Your task to perform on an android device: Open sound settings Image 0: 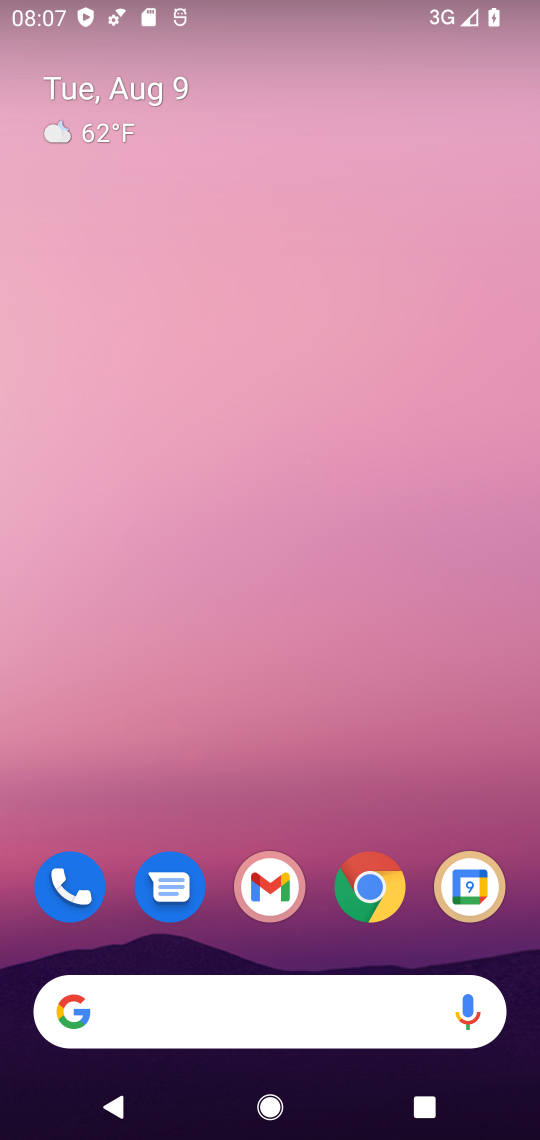
Step 0: drag from (380, 759) to (383, 0)
Your task to perform on an android device: Open sound settings Image 1: 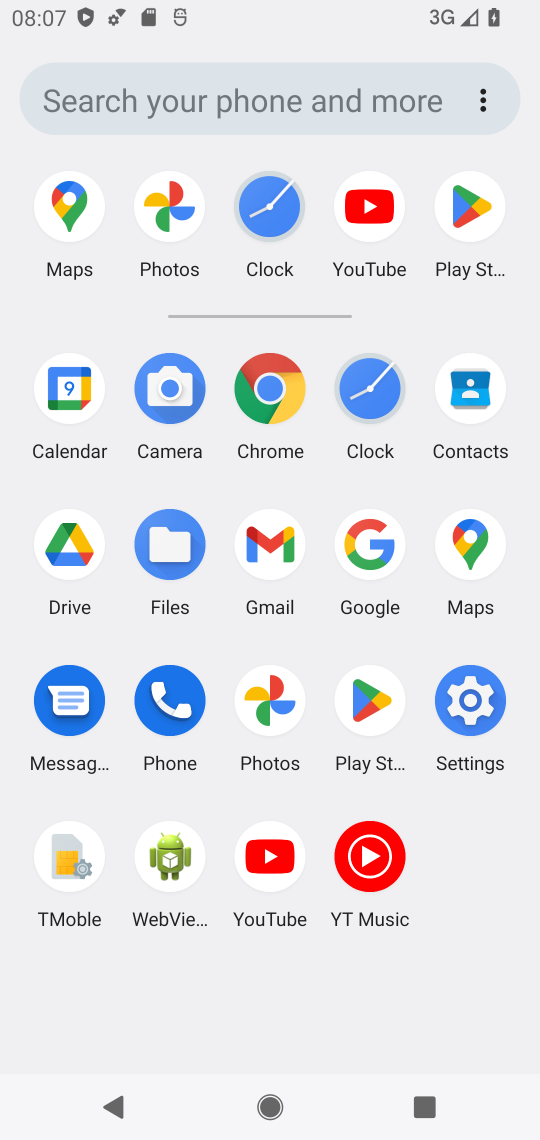
Step 1: click (479, 688)
Your task to perform on an android device: Open sound settings Image 2: 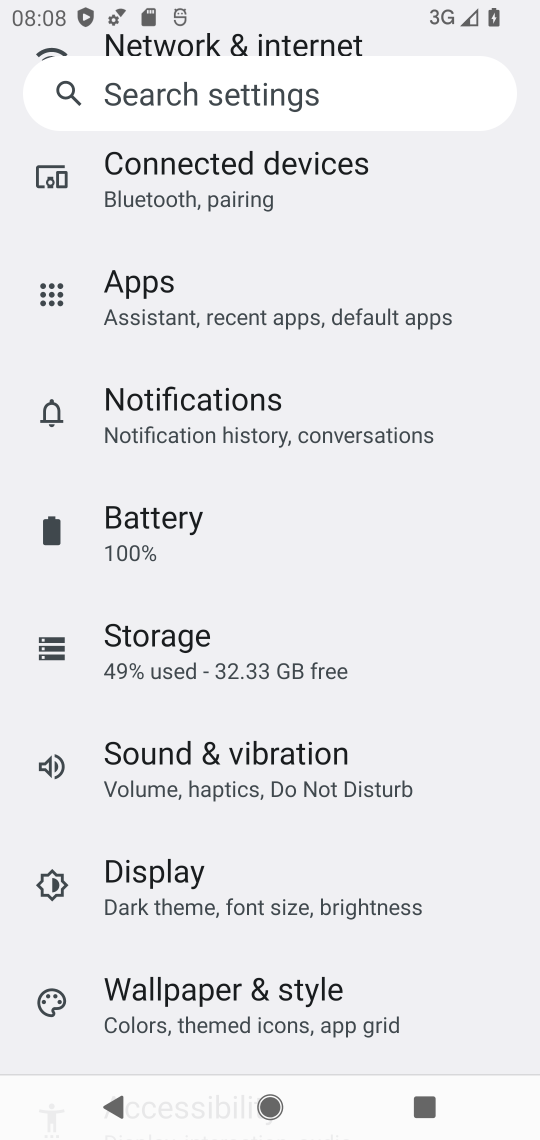
Step 2: drag from (314, 348) to (316, 87)
Your task to perform on an android device: Open sound settings Image 3: 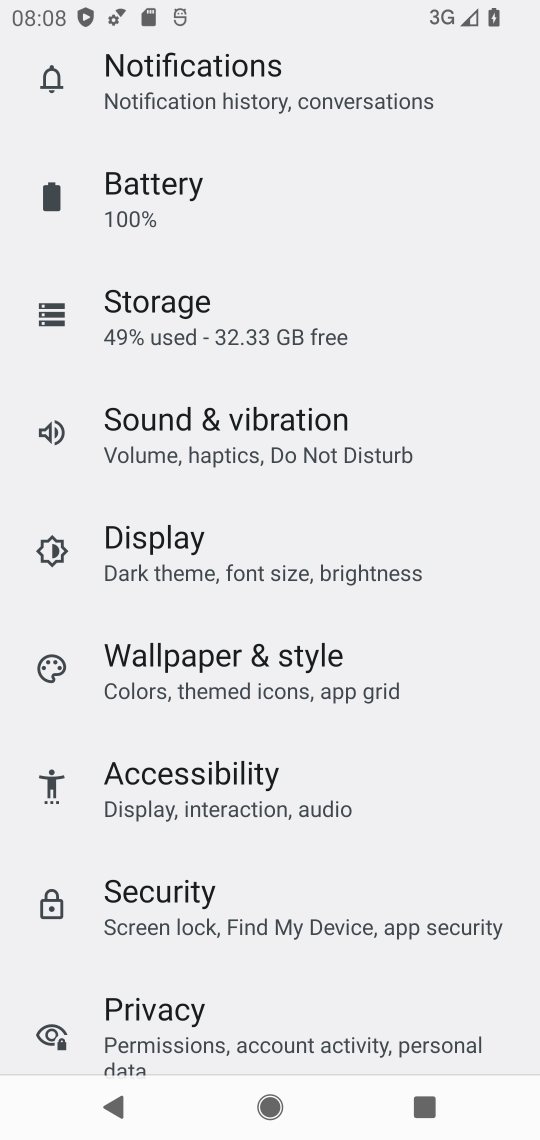
Step 3: click (255, 443)
Your task to perform on an android device: Open sound settings Image 4: 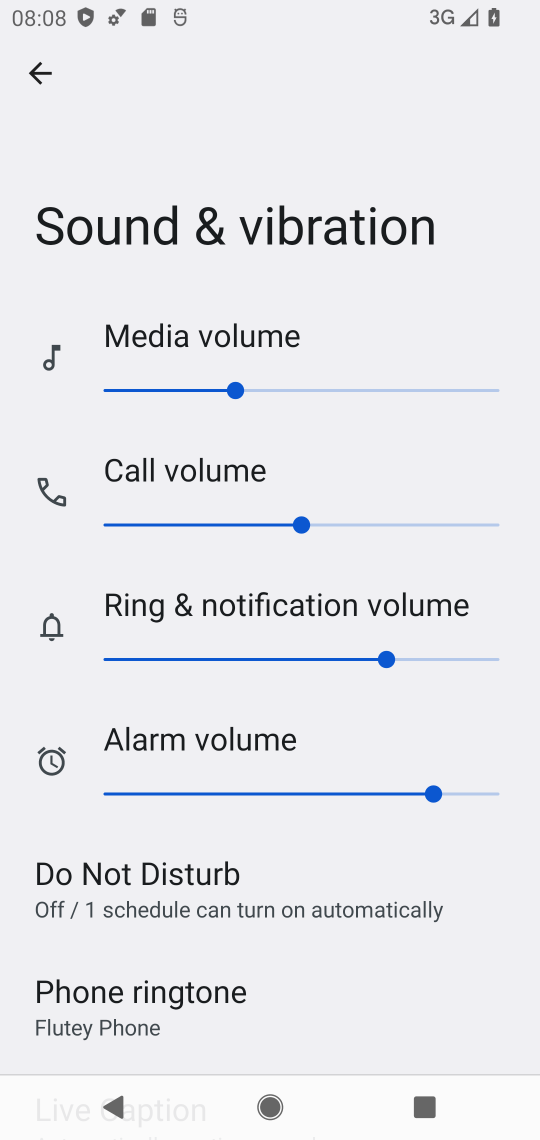
Step 4: task complete